Your task to perform on an android device: Go to location settings Image 0: 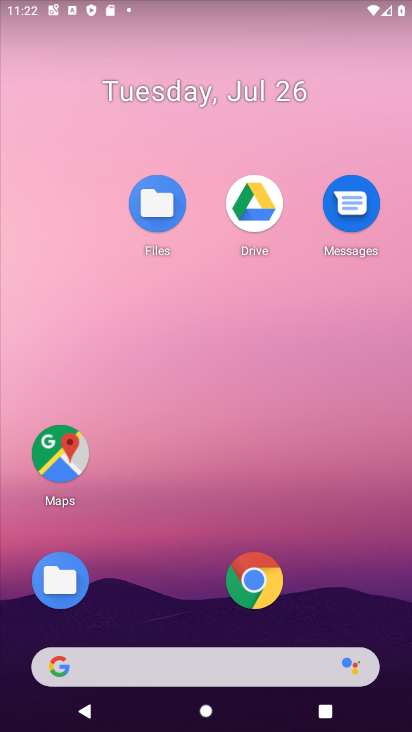
Step 0: drag from (189, 602) to (238, 34)
Your task to perform on an android device: Go to location settings Image 1: 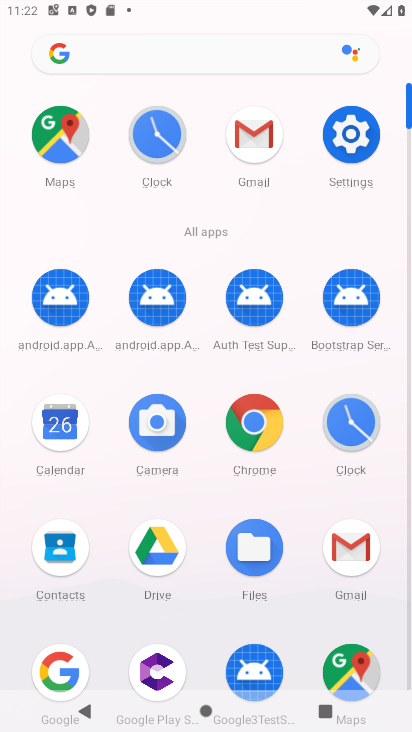
Step 1: click (361, 124)
Your task to perform on an android device: Go to location settings Image 2: 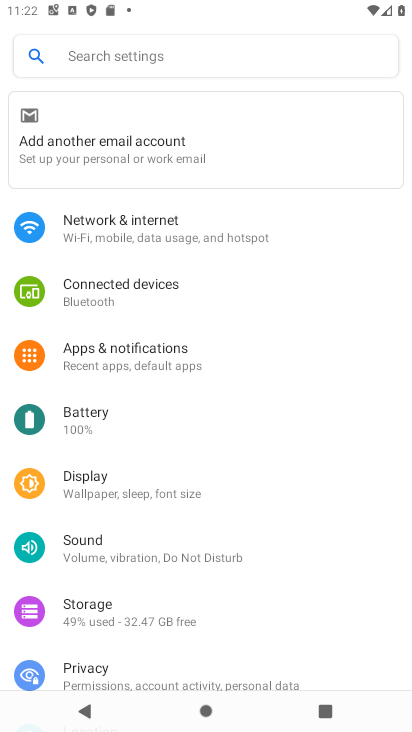
Step 2: drag from (148, 642) to (171, 117)
Your task to perform on an android device: Go to location settings Image 3: 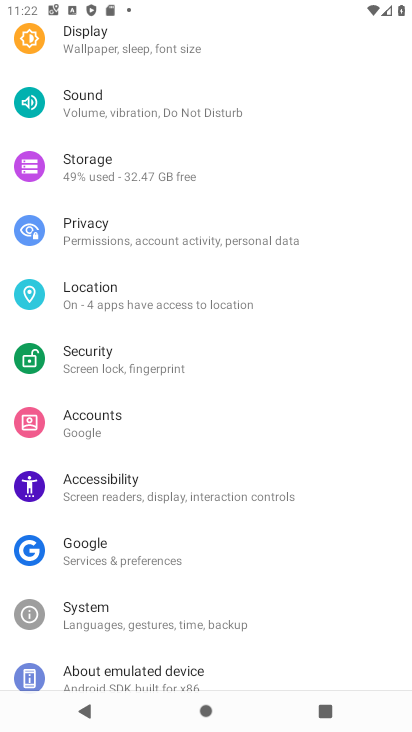
Step 3: click (116, 306)
Your task to perform on an android device: Go to location settings Image 4: 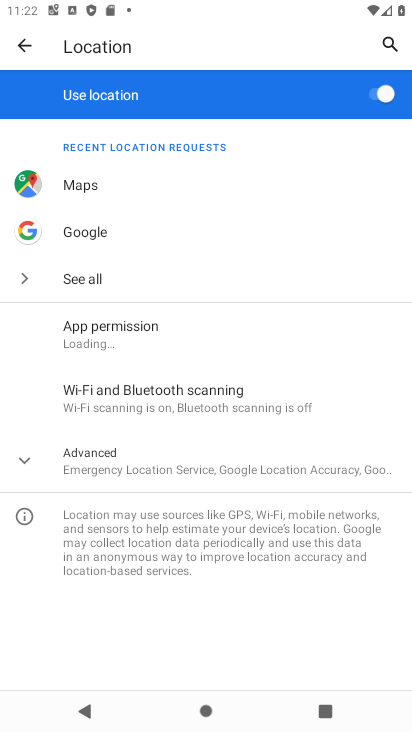
Step 4: task complete